Your task to perform on an android device: clear history in the chrome app Image 0: 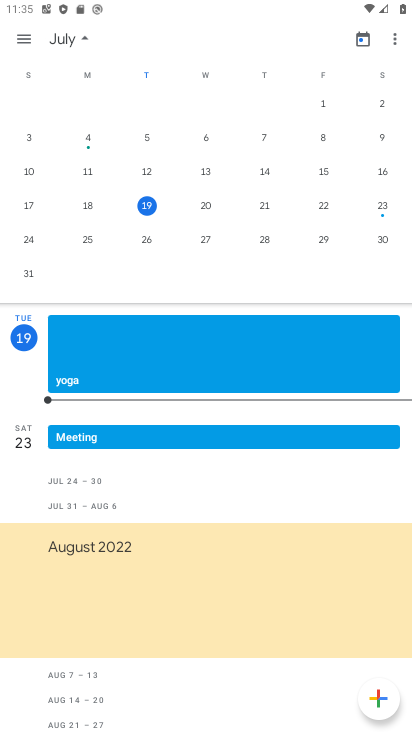
Step 0: press home button
Your task to perform on an android device: clear history in the chrome app Image 1: 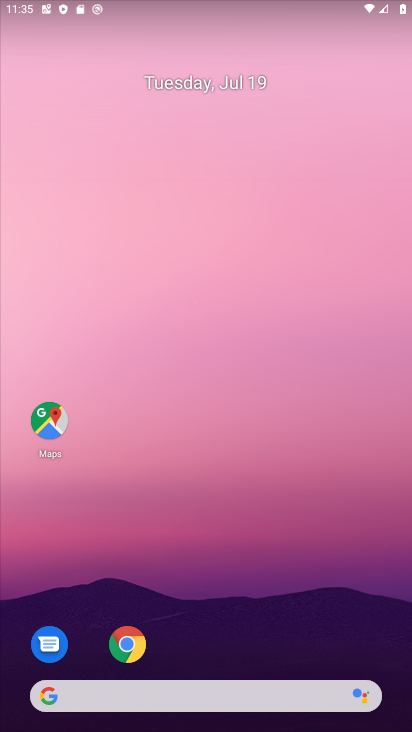
Step 1: click (130, 648)
Your task to perform on an android device: clear history in the chrome app Image 2: 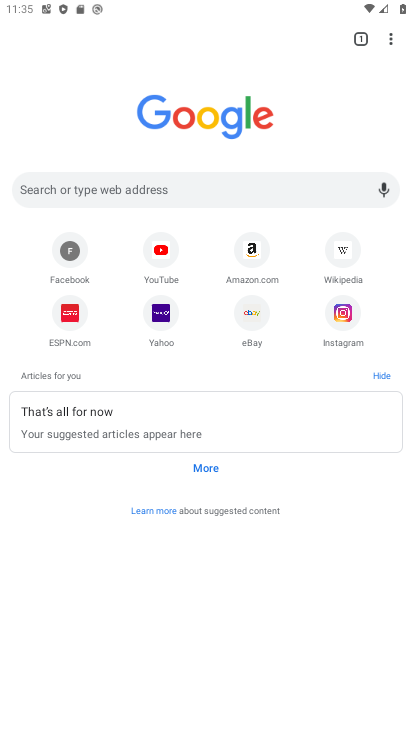
Step 2: click (398, 39)
Your task to perform on an android device: clear history in the chrome app Image 3: 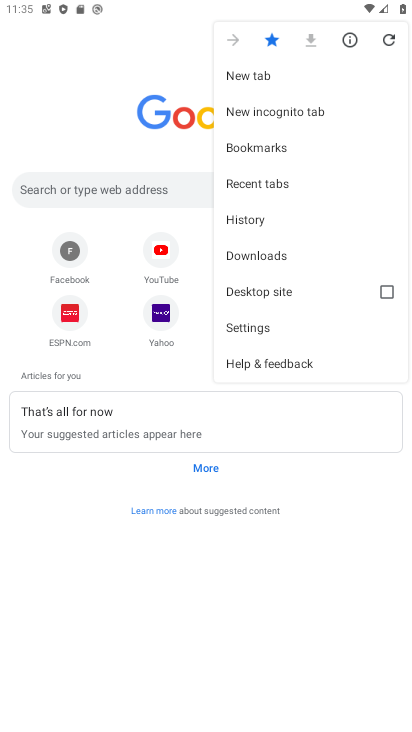
Step 3: click (249, 221)
Your task to perform on an android device: clear history in the chrome app Image 4: 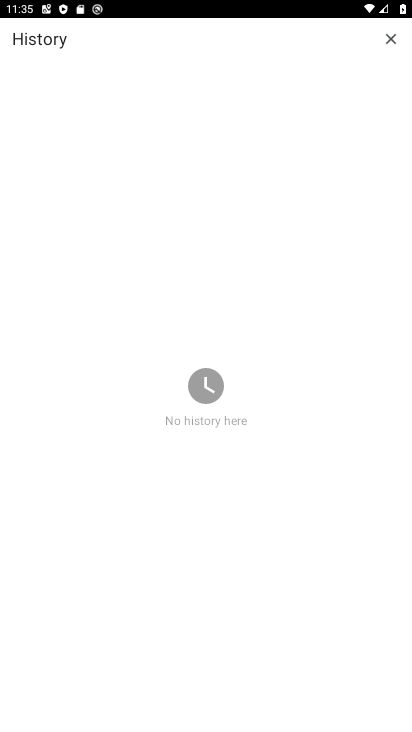
Step 4: task complete